Your task to perform on an android device: Open Maps and search for coffee Image 0: 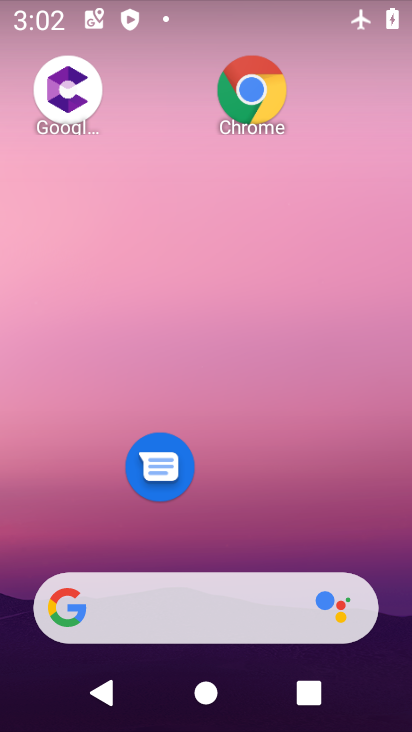
Step 0: drag from (305, 522) to (290, 146)
Your task to perform on an android device: Open Maps and search for coffee Image 1: 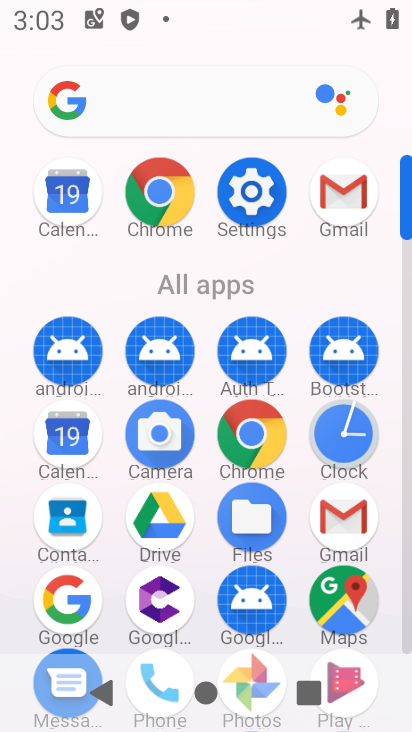
Step 1: click (347, 595)
Your task to perform on an android device: Open Maps and search for coffee Image 2: 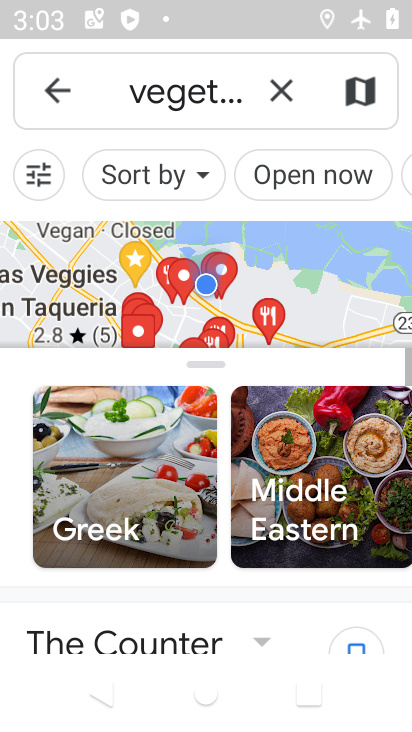
Step 2: click (206, 98)
Your task to perform on an android device: Open Maps and search for coffee Image 3: 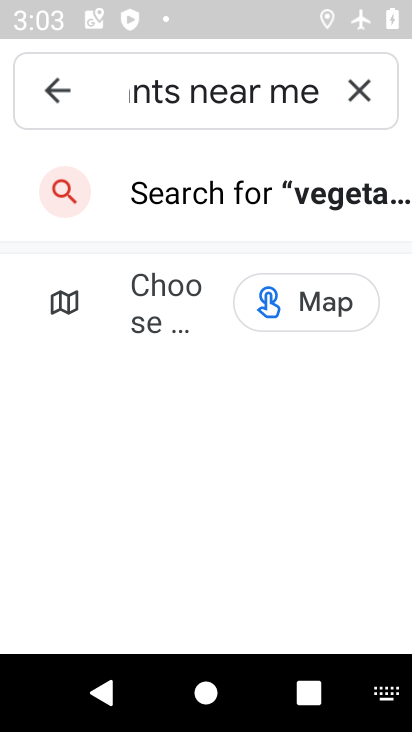
Step 3: click (359, 84)
Your task to perform on an android device: Open Maps and search for coffee Image 4: 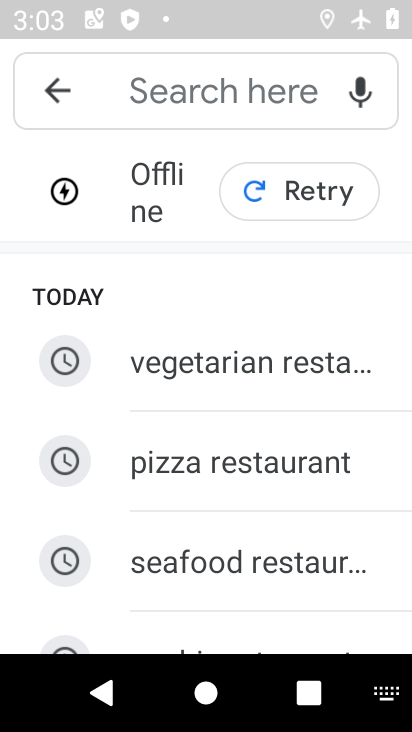
Step 4: type "coffee"
Your task to perform on an android device: Open Maps and search for coffee Image 5: 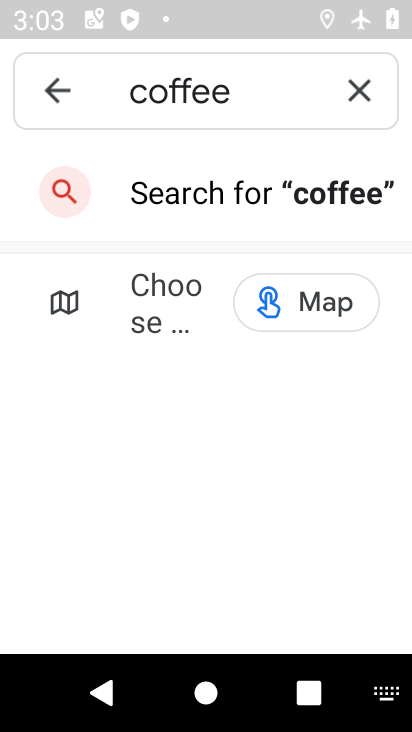
Step 5: click (284, 175)
Your task to perform on an android device: Open Maps and search for coffee Image 6: 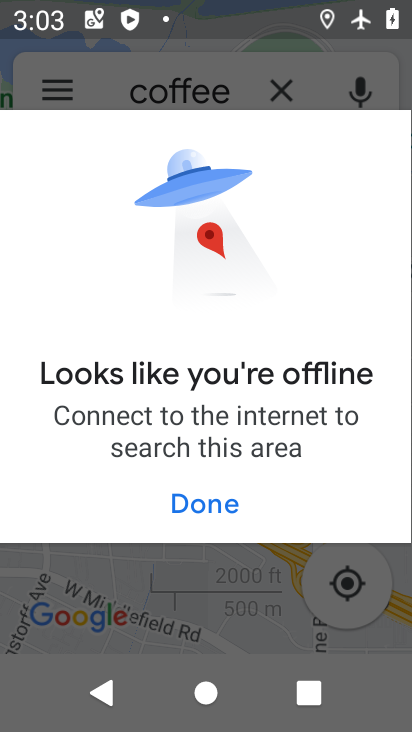
Step 6: task complete